Your task to perform on an android device: check google app version Image 0: 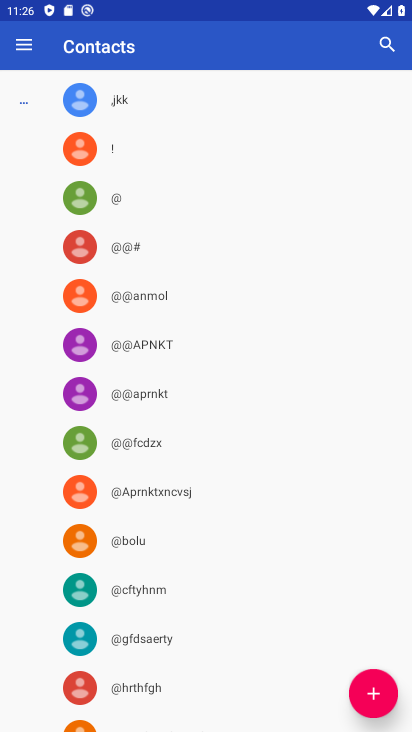
Step 0: press home button
Your task to perform on an android device: check google app version Image 1: 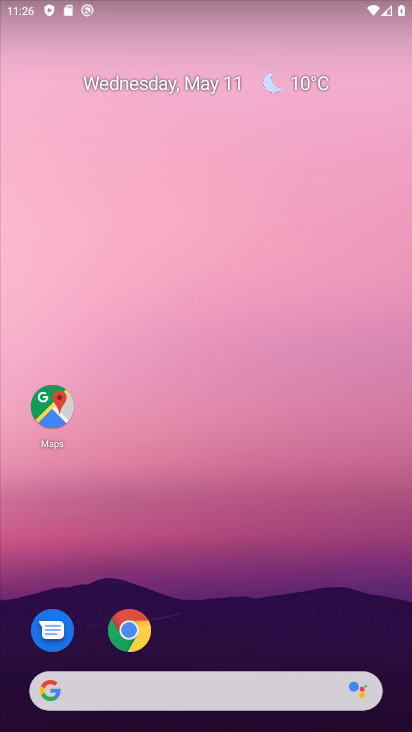
Step 1: drag from (197, 715) to (216, 235)
Your task to perform on an android device: check google app version Image 2: 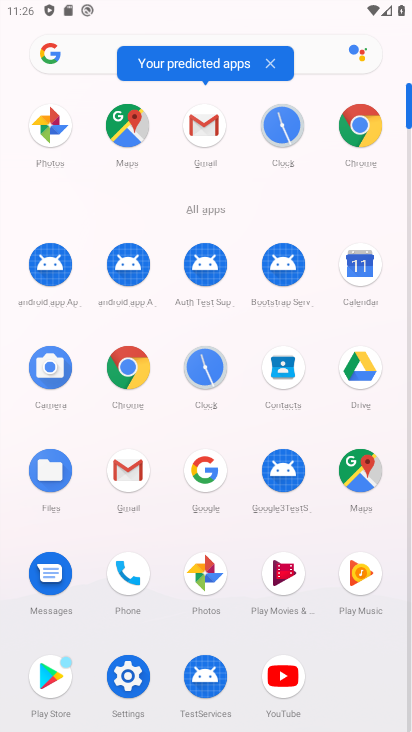
Step 2: click (208, 478)
Your task to perform on an android device: check google app version Image 3: 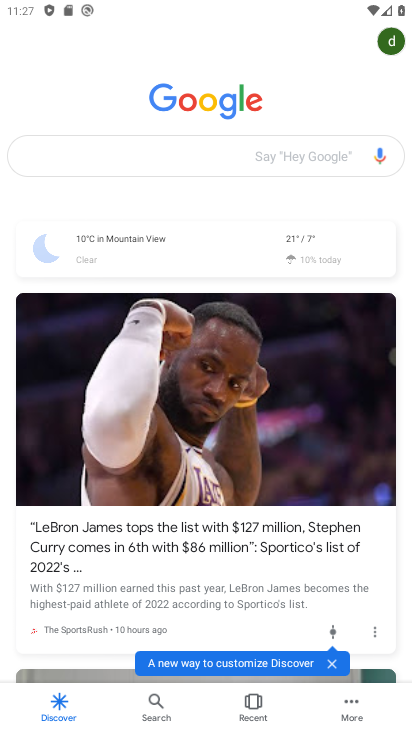
Step 3: click (355, 697)
Your task to perform on an android device: check google app version Image 4: 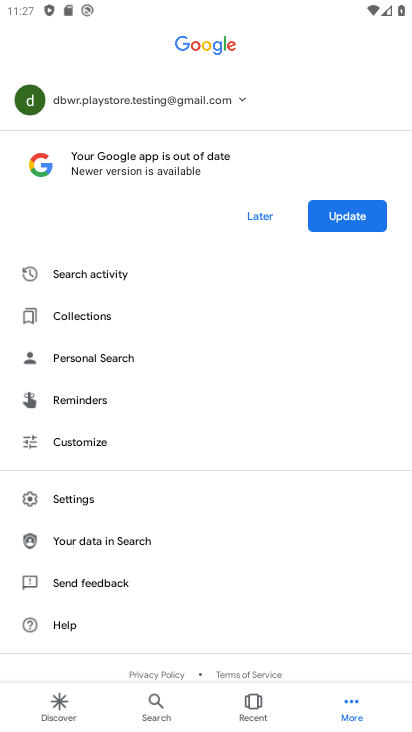
Step 4: click (74, 498)
Your task to perform on an android device: check google app version Image 5: 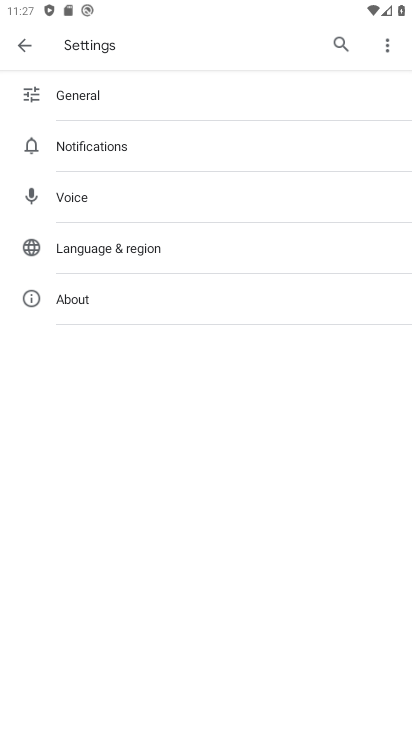
Step 5: click (65, 298)
Your task to perform on an android device: check google app version Image 6: 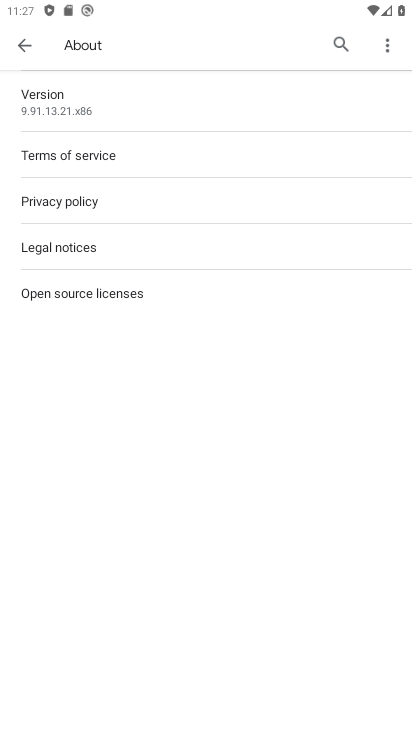
Step 6: task complete